Your task to perform on an android device: open sync settings in chrome Image 0: 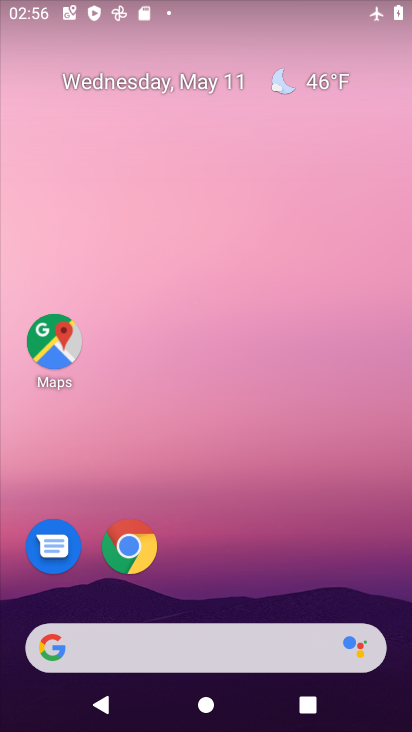
Step 0: drag from (180, 621) to (309, 49)
Your task to perform on an android device: open sync settings in chrome Image 1: 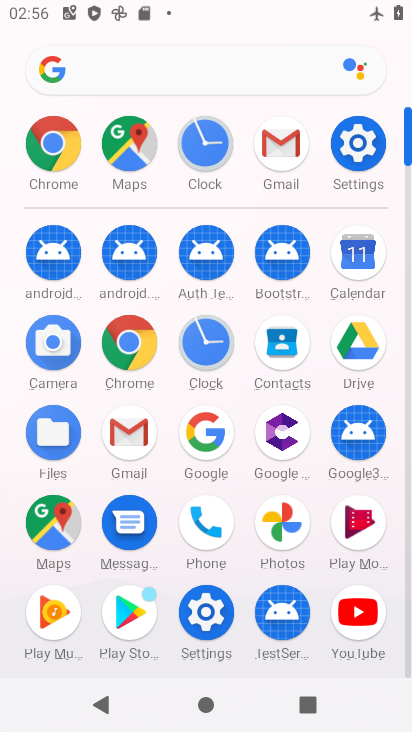
Step 1: click (124, 334)
Your task to perform on an android device: open sync settings in chrome Image 2: 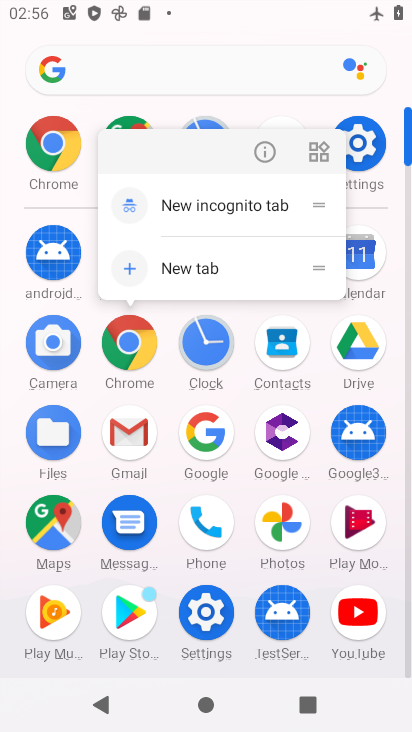
Step 2: click (268, 143)
Your task to perform on an android device: open sync settings in chrome Image 3: 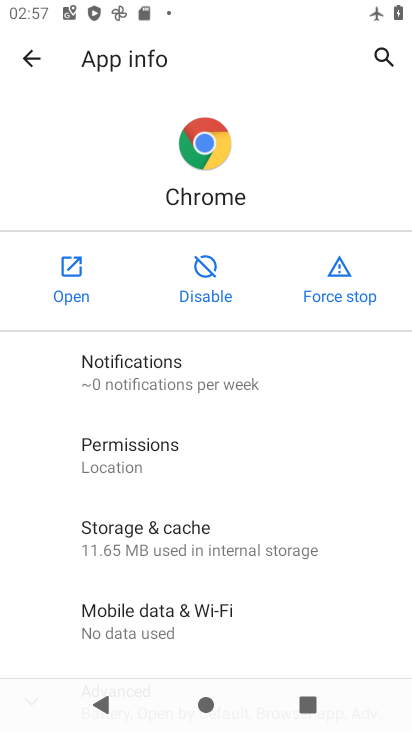
Step 3: click (57, 264)
Your task to perform on an android device: open sync settings in chrome Image 4: 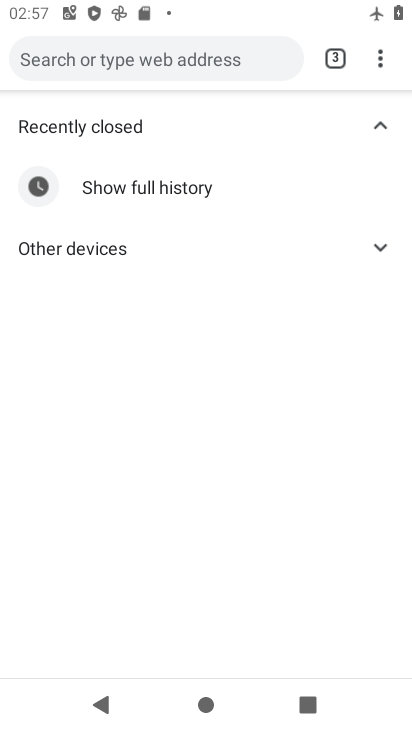
Step 4: click (379, 68)
Your task to perform on an android device: open sync settings in chrome Image 5: 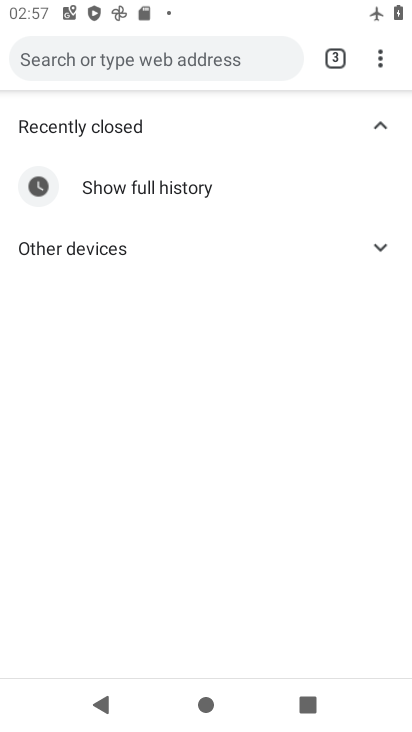
Step 5: drag from (379, 68) to (212, 485)
Your task to perform on an android device: open sync settings in chrome Image 6: 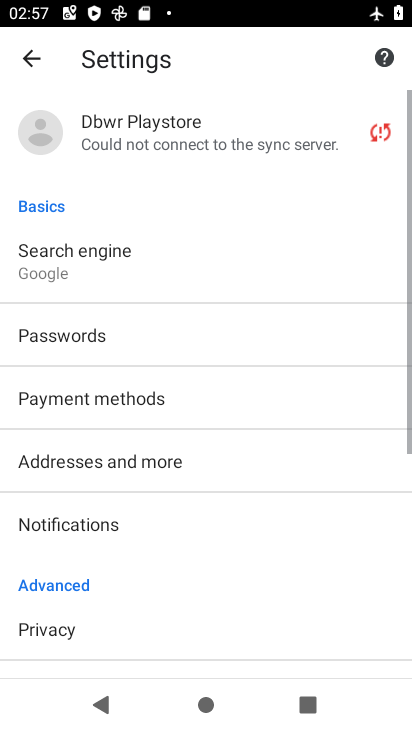
Step 6: drag from (210, 482) to (267, 34)
Your task to perform on an android device: open sync settings in chrome Image 7: 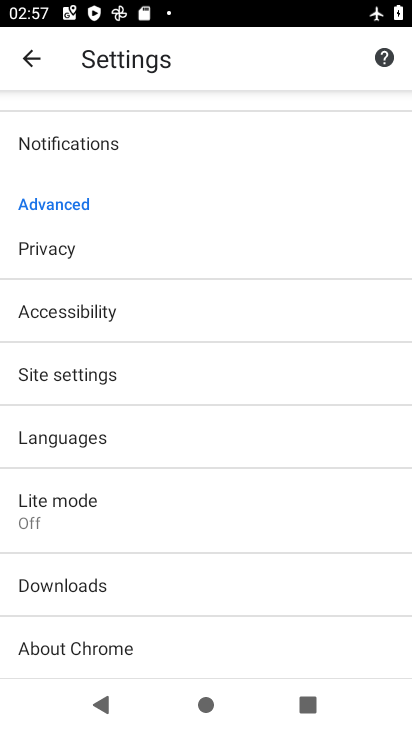
Step 7: click (114, 369)
Your task to perform on an android device: open sync settings in chrome Image 8: 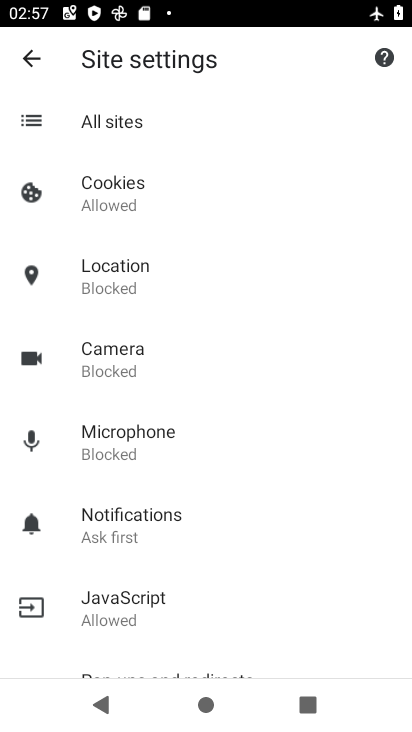
Step 8: drag from (263, 526) to (300, 189)
Your task to perform on an android device: open sync settings in chrome Image 9: 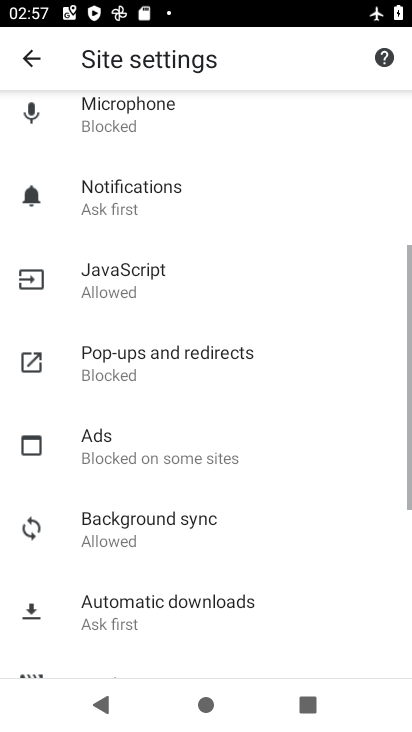
Step 9: drag from (300, 189) to (409, 135)
Your task to perform on an android device: open sync settings in chrome Image 10: 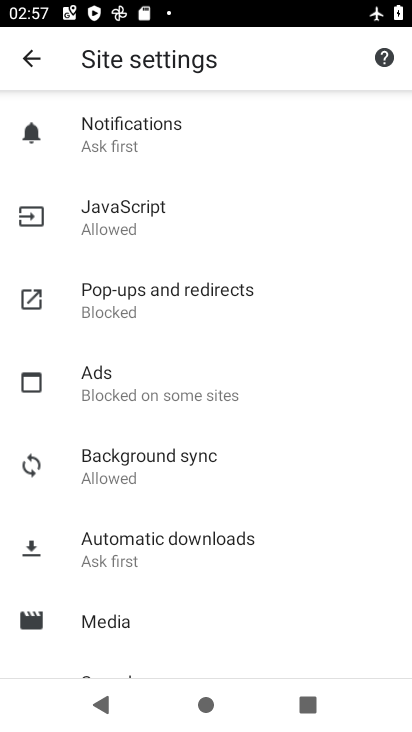
Step 10: click (183, 464)
Your task to perform on an android device: open sync settings in chrome Image 11: 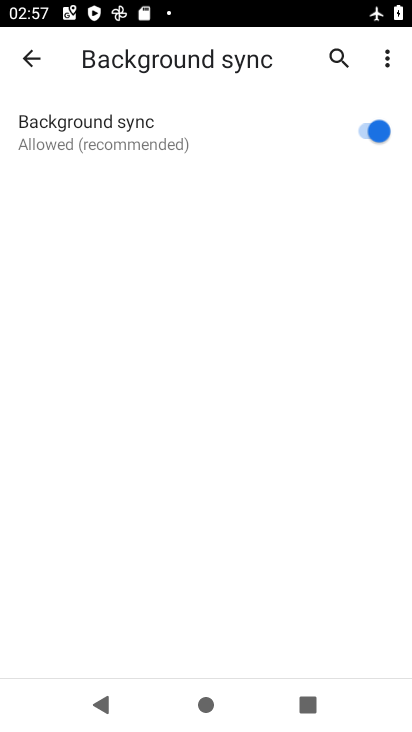
Step 11: task complete